Your task to perform on an android device: turn off improve location accuracy Image 0: 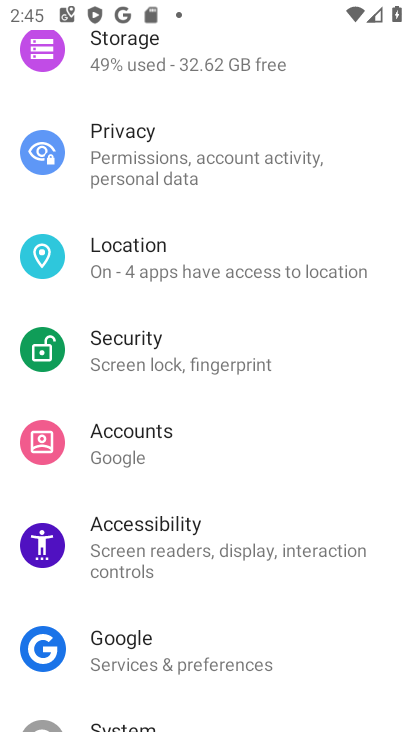
Step 0: click (182, 239)
Your task to perform on an android device: turn off improve location accuracy Image 1: 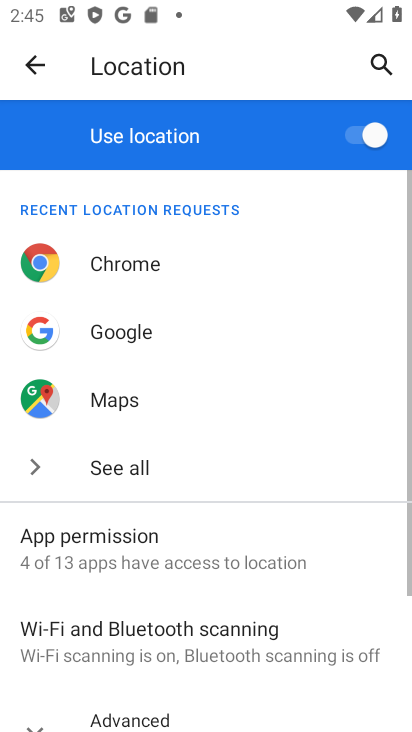
Step 1: drag from (184, 606) to (278, 275)
Your task to perform on an android device: turn off improve location accuracy Image 2: 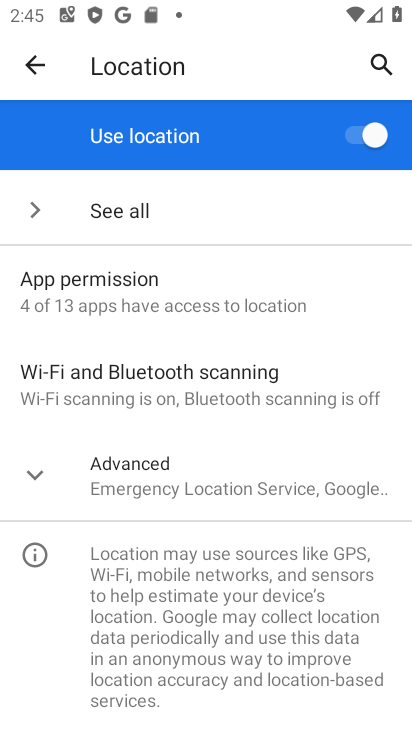
Step 2: click (210, 462)
Your task to perform on an android device: turn off improve location accuracy Image 3: 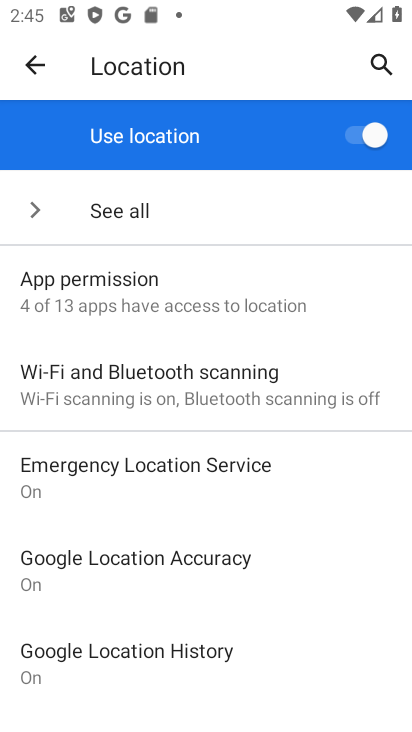
Step 3: click (182, 565)
Your task to perform on an android device: turn off improve location accuracy Image 4: 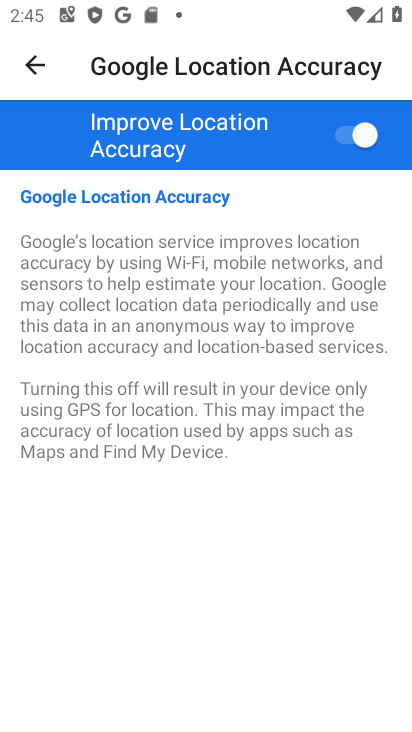
Step 4: click (349, 119)
Your task to perform on an android device: turn off improve location accuracy Image 5: 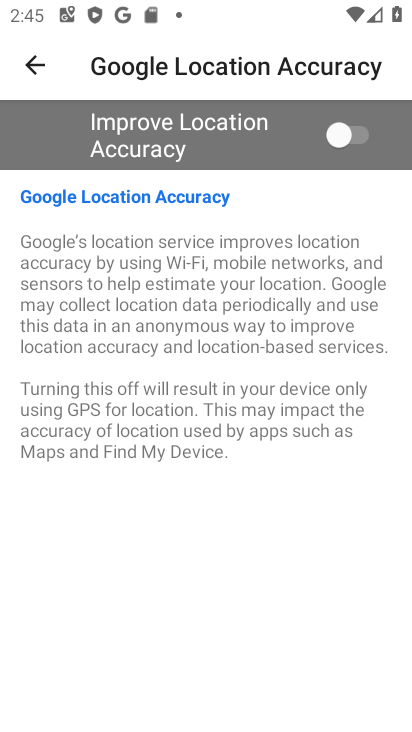
Step 5: task complete